Your task to perform on an android device: Go to settings Image 0: 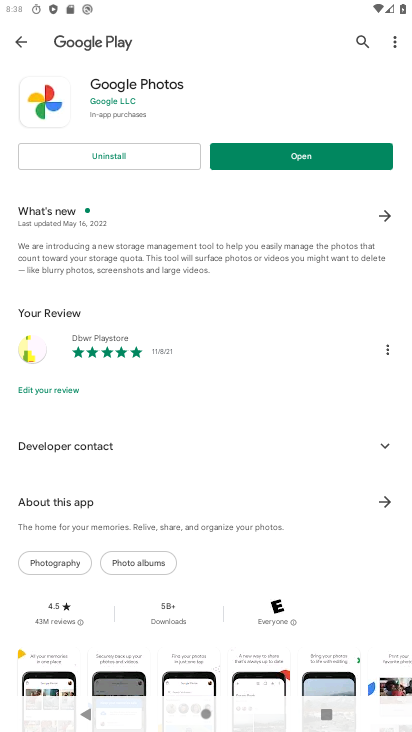
Step 0: press home button
Your task to perform on an android device: Go to settings Image 1: 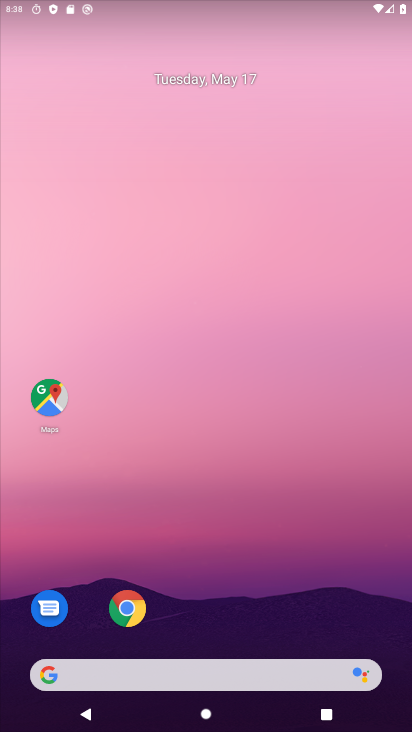
Step 1: drag from (338, 597) to (320, 207)
Your task to perform on an android device: Go to settings Image 2: 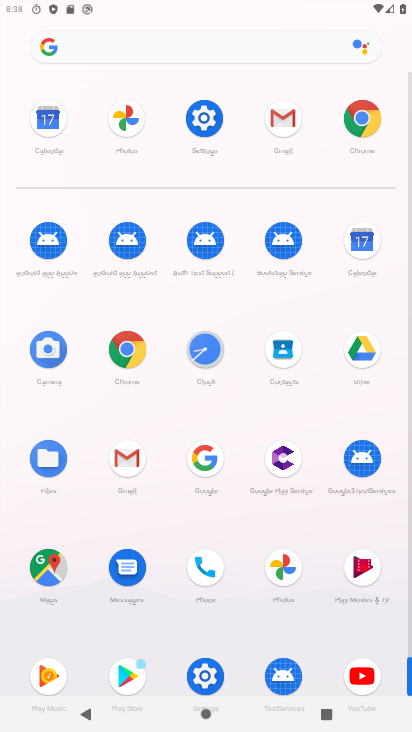
Step 2: click (207, 115)
Your task to perform on an android device: Go to settings Image 3: 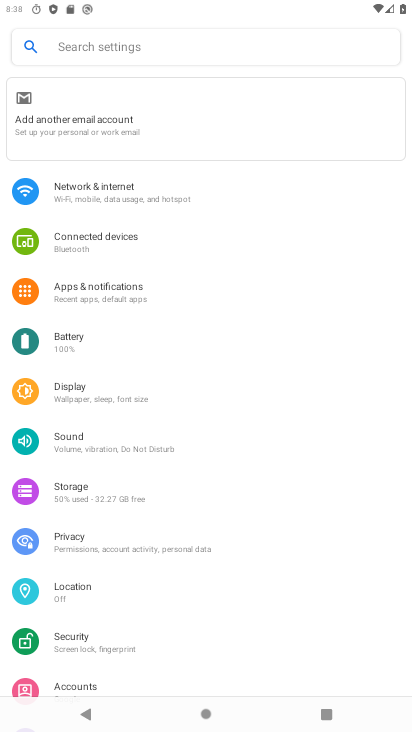
Step 3: task complete